Your task to perform on an android device: Open Google Chrome and click the shortcut for Amazon.com Image 0: 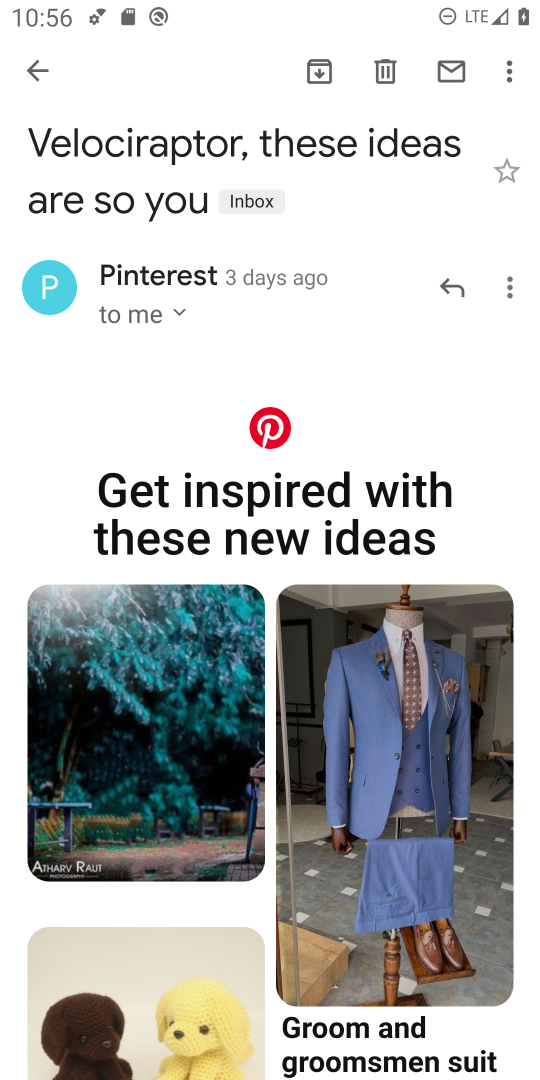
Step 0: press home button
Your task to perform on an android device: Open Google Chrome and click the shortcut for Amazon.com Image 1: 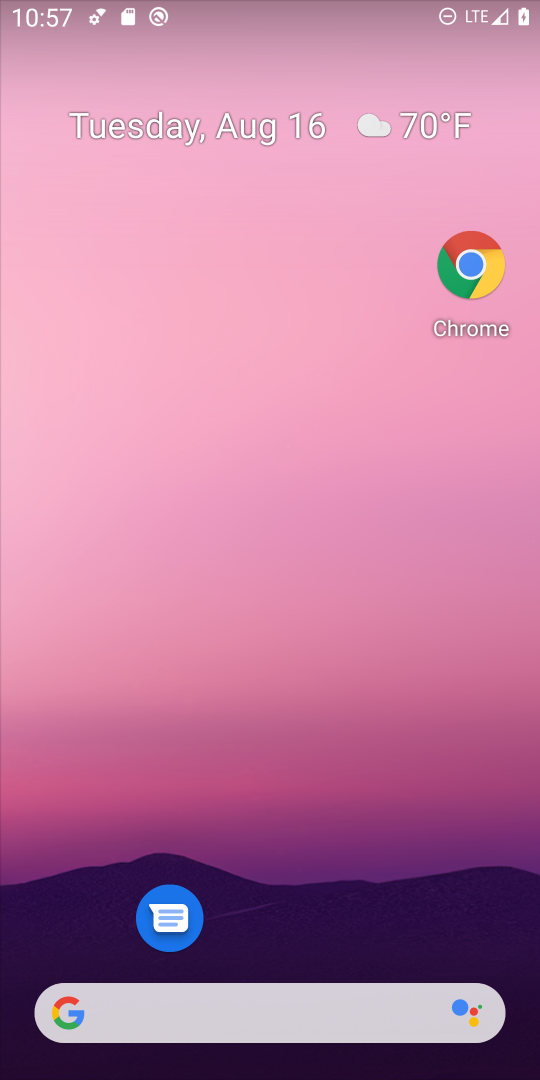
Step 1: drag from (349, 824) to (389, 214)
Your task to perform on an android device: Open Google Chrome and click the shortcut for Amazon.com Image 2: 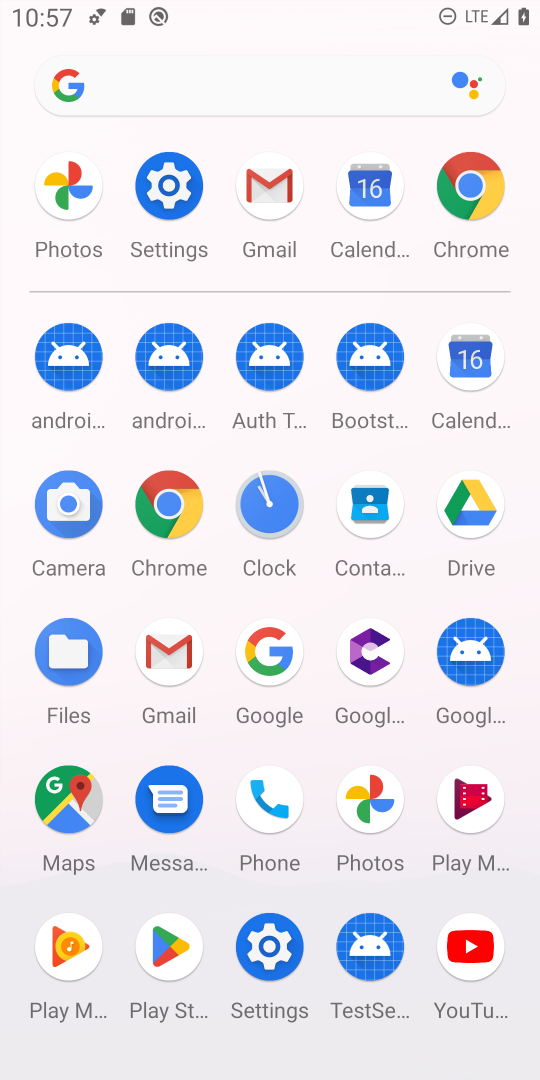
Step 2: click (174, 519)
Your task to perform on an android device: Open Google Chrome and click the shortcut for Amazon.com Image 3: 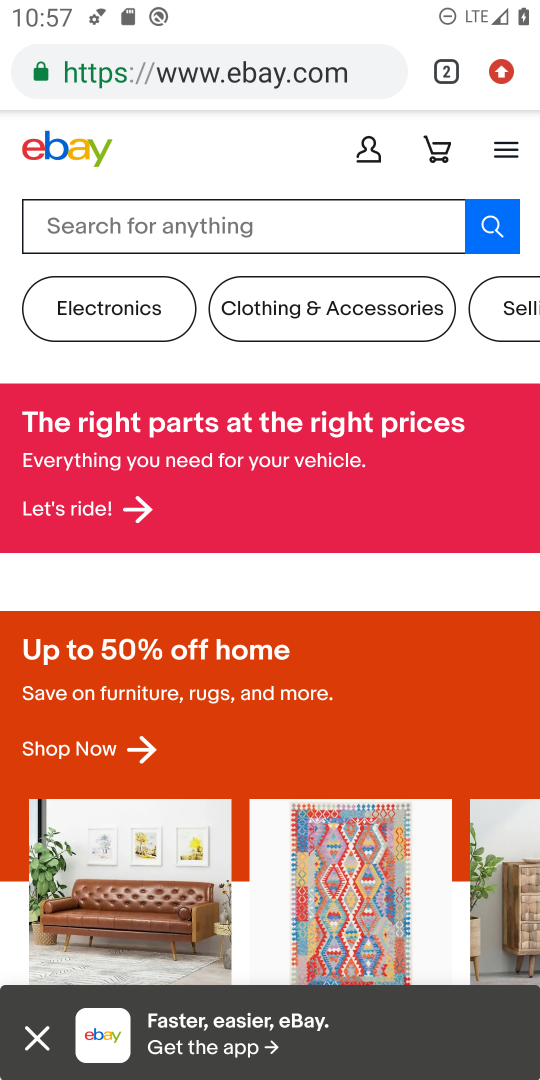
Step 3: click (506, 69)
Your task to perform on an android device: Open Google Chrome and click the shortcut for Amazon.com Image 4: 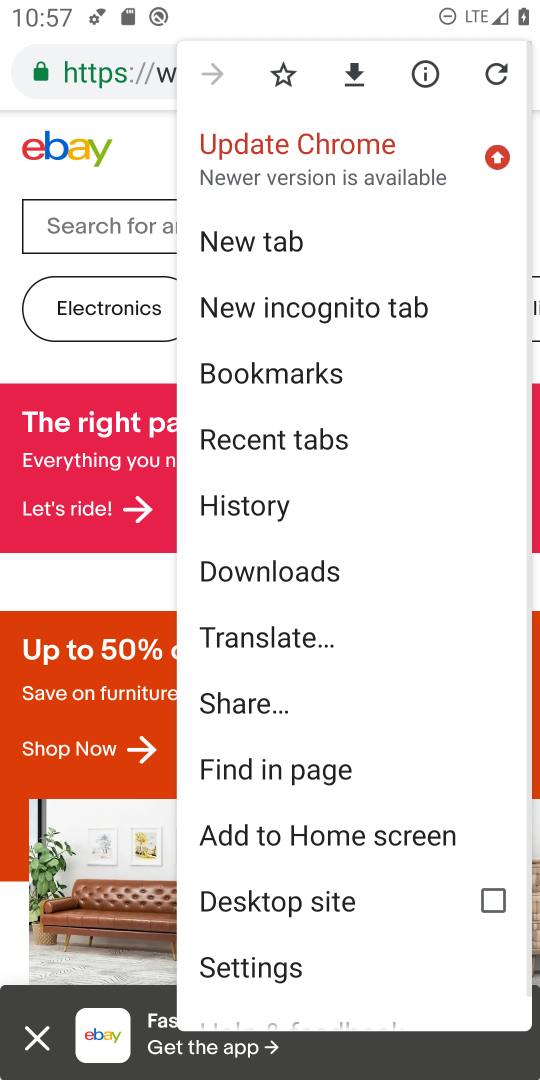
Step 4: click (121, 81)
Your task to perform on an android device: Open Google Chrome and click the shortcut for Amazon.com Image 5: 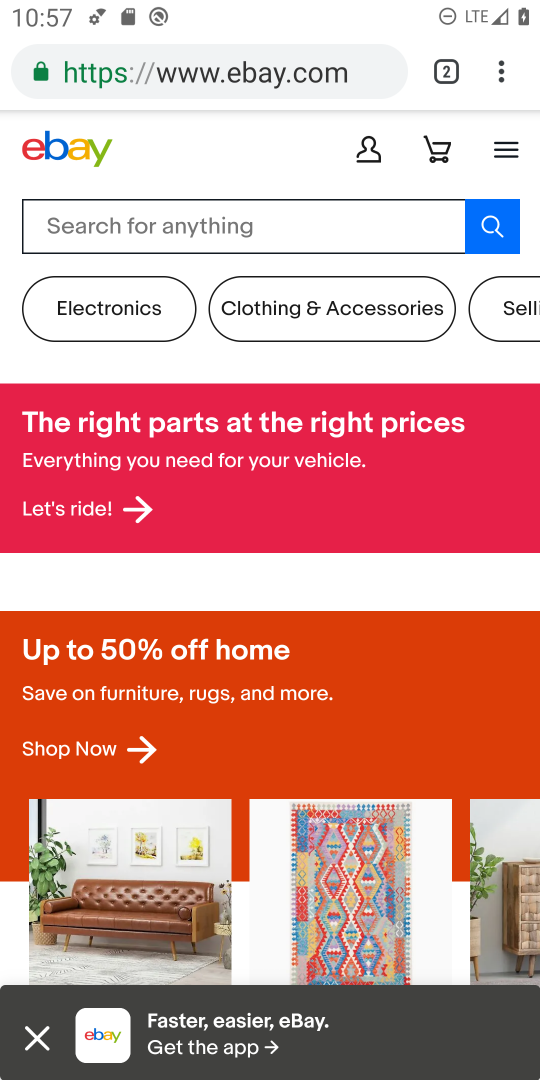
Step 5: drag from (454, 75) to (423, 360)
Your task to perform on an android device: Open Google Chrome and click the shortcut for Amazon.com Image 6: 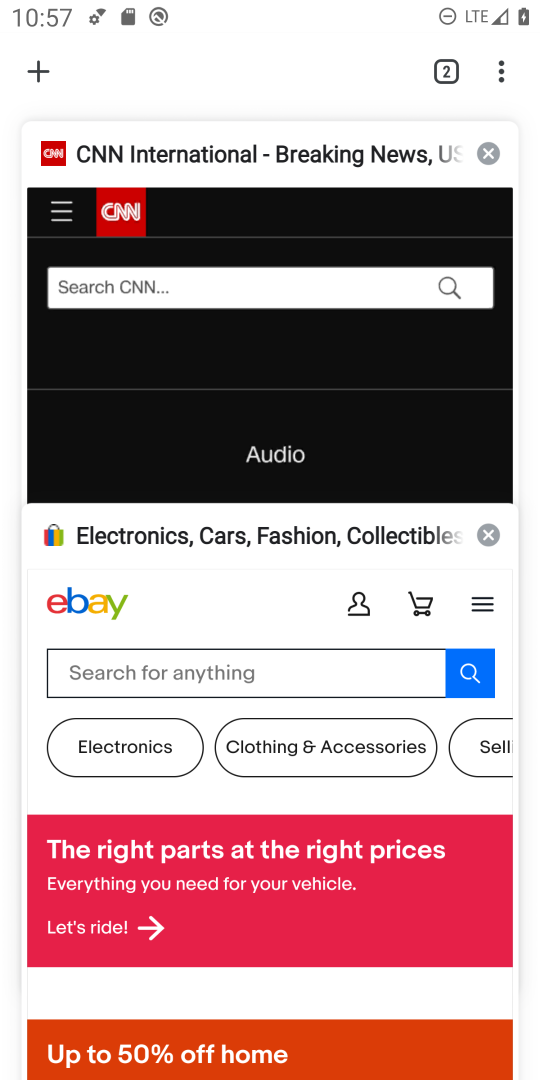
Step 6: click (37, 77)
Your task to perform on an android device: Open Google Chrome and click the shortcut for Amazon.com Image 7: 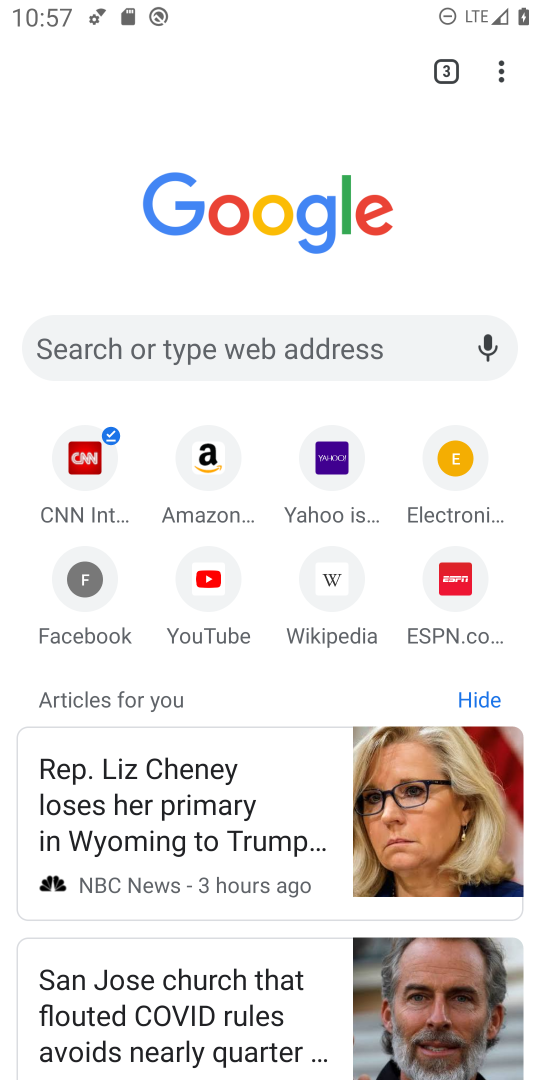
Step 7: click (227, 450)
Your task to perform on an android device: Open Google Chrome and click the shortcut for Amazon.com Image 8: 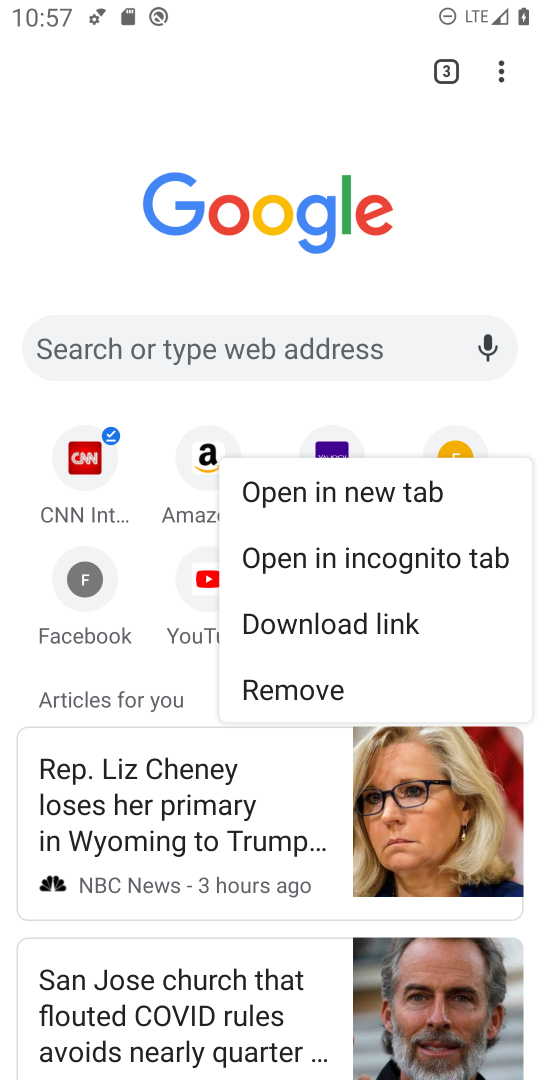
Step 8: click (180, 473)
Your task to perform on an android device: Open Google Chrome and click the shortcut for Amazon.com Image 9: 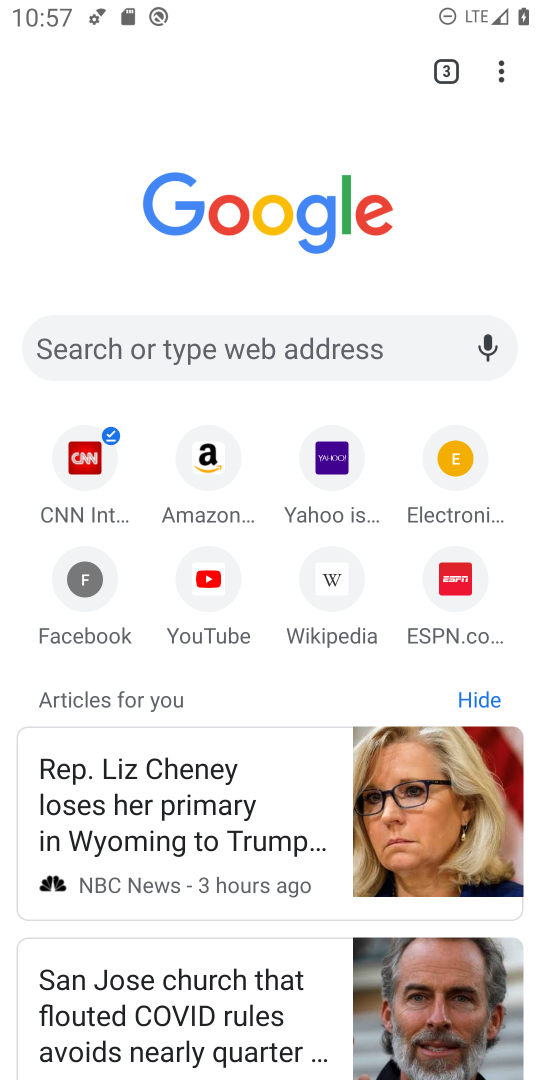
Step 9: click (214, 474)
Your task to perform on an android device: Open Google Chrome and click the shortcut for Amazon.com Image 10: 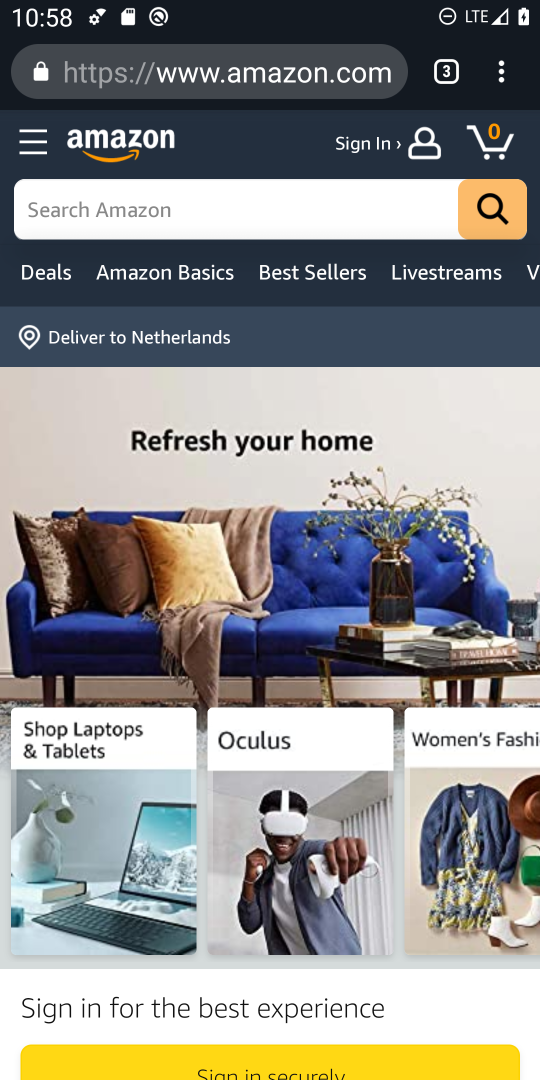
Step 10: task complete